Your task to perform on an android device: Open the calendar and show me this week's events? Image 0: 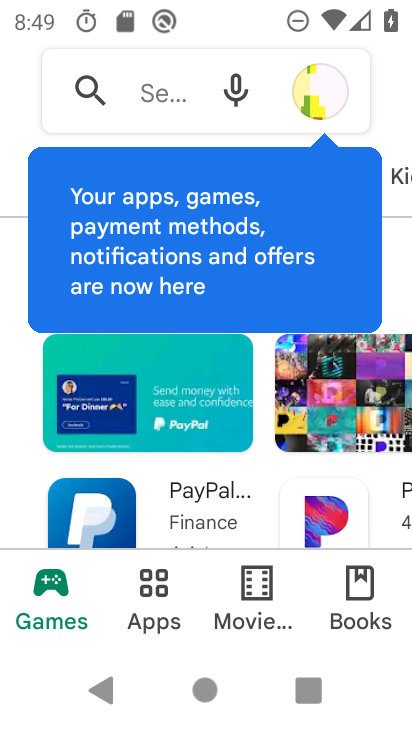
Step 0: press home button
Your task to perform on an android device: Open the calendar and show me this week's events? Image 1: 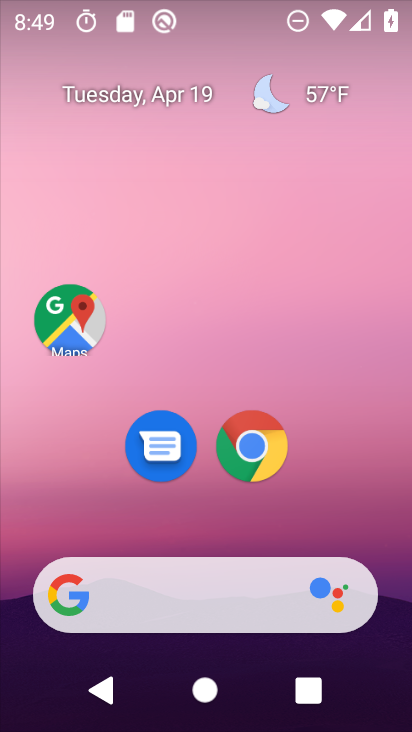
Step 1: drag from (361, 435) to (323, 89)
Your task to perform on an android device: Open the calendar and show me this week's events? Image 2: 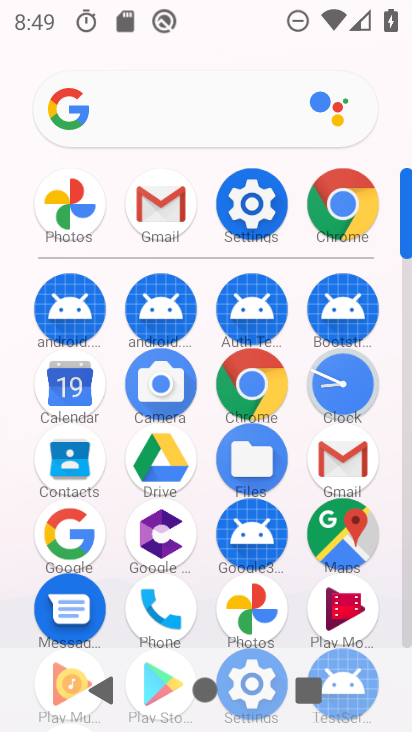
Step 2: click (73, 394)
Your task to perform on an android device: Open the calendar and show me this week's events? Image 3: 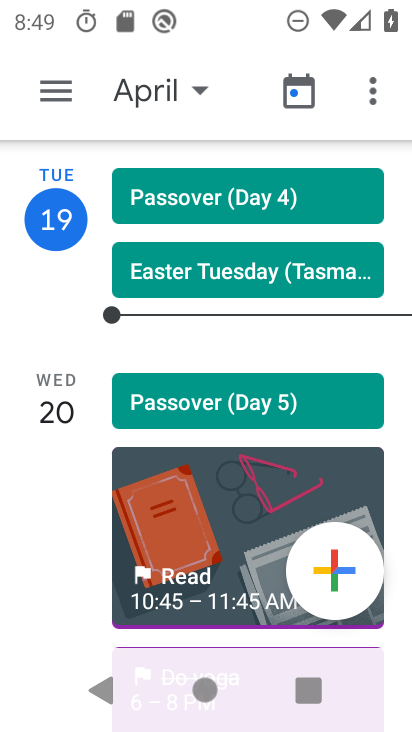
Step 3: click (55, 87)
Your task to perform on an android device: Open the calendar and show me this week's events? Image 4: 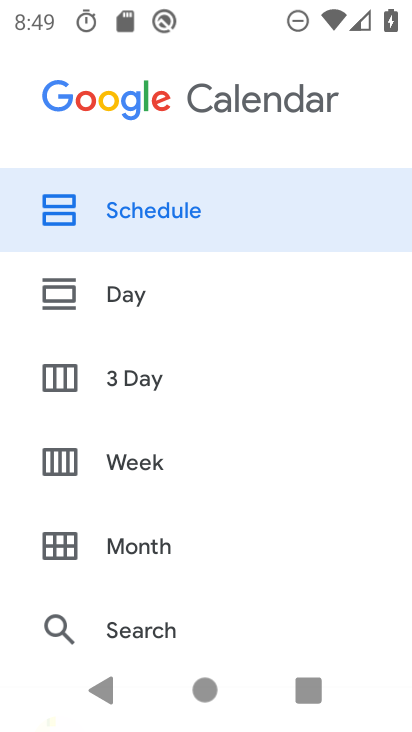
Step 4: click (68, 461)
Your task to perform on an android device: Open the calendar and show me this week's events? Image 5: 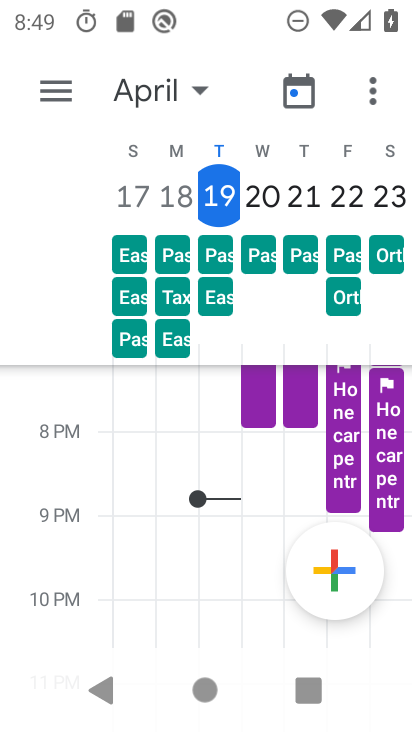
Step 5: task complete